Your task to perform on an android device: check storage Image 0: 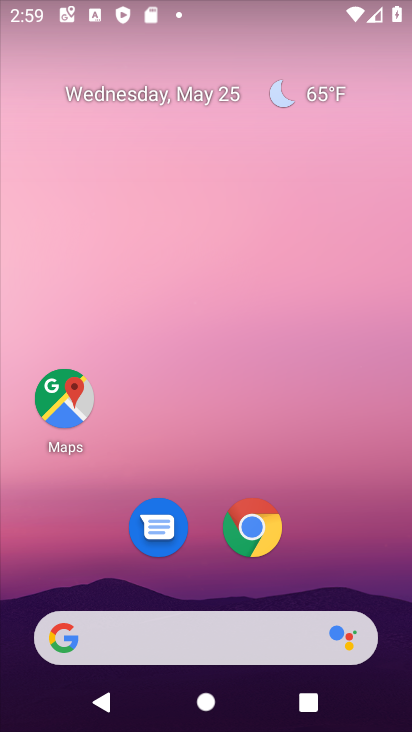
Step 0: drag from (303, 595) to (322, 3)
Your task to perform on an android device: check storage Image 1: 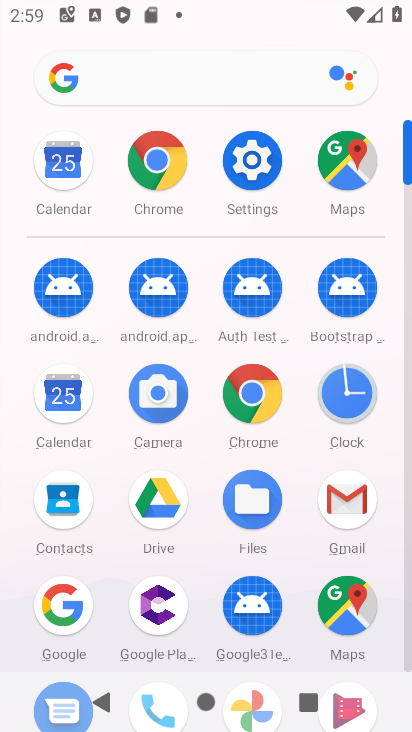
Step 1: click (246, 156)
Your task to perform on an android device: check storage Image 2: 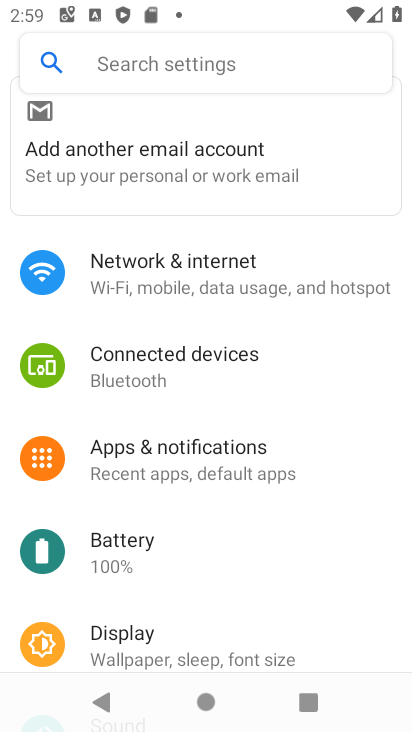
Step 2: drag from (133, 573) to (201, 118)
Your task to perform on an android device: check storage Image 3: 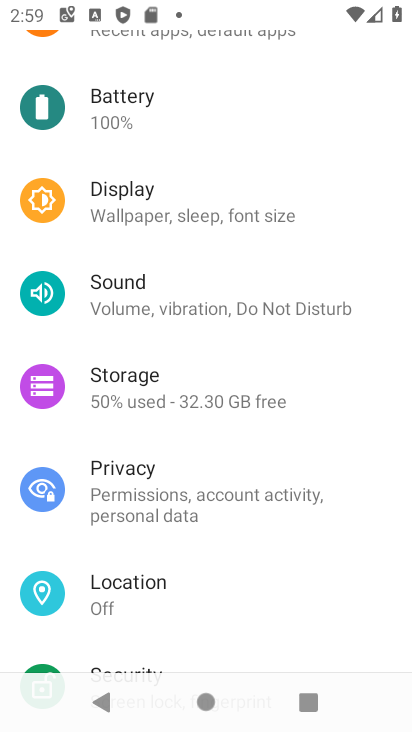
Step 3: click (189, 399)
Your task to perform on an android device: check storage Image 4: 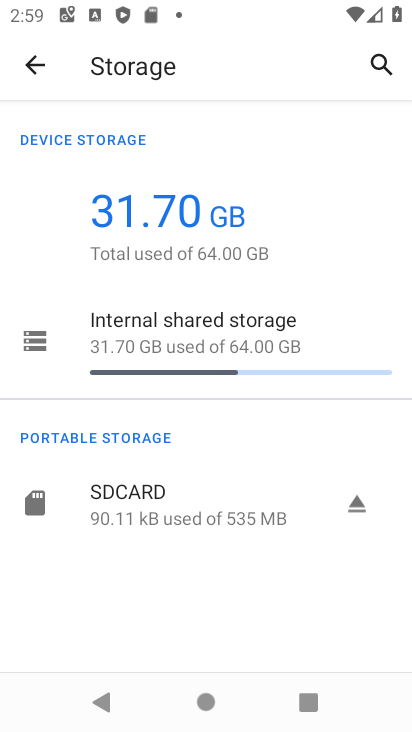
Step 4: task complete